Your task to perform on an android device: open app "Pinterest" (install if not already installed), go to login, and select forgot password Image 0: 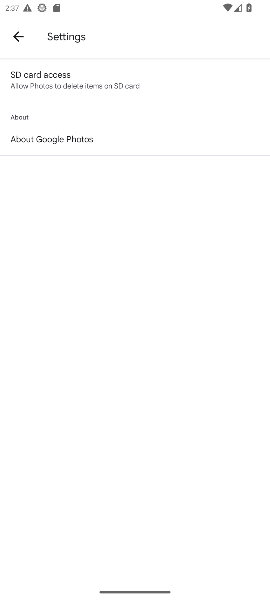
Step 0: press home button
Your task to perform on an android device: open app "Pinterest" (install if not already installed), go to login, and select forgot password Image 1: 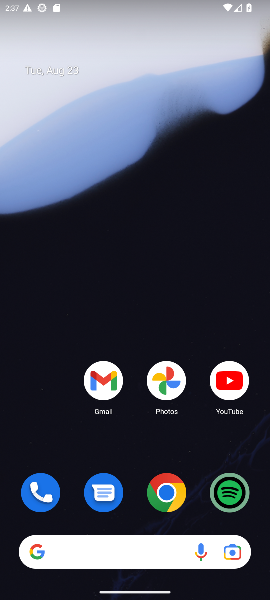
Step 1: drag from (131, 513) to (134, 181)
Your task to perform on an android device: open app "Pinterest" (install if not already installed), go to login, and select forgot password Image 2: 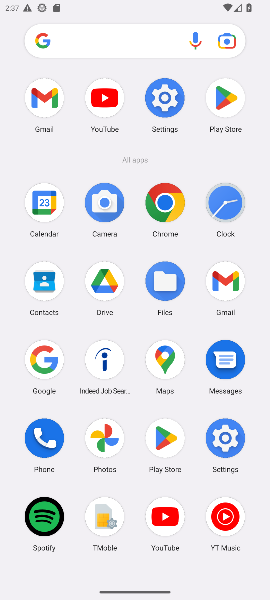
Step 2: click (218, 104)
Your task to perform on an android device: open app "Pinterest" (install if not already installed), go to login, and select forgot password Image 3: 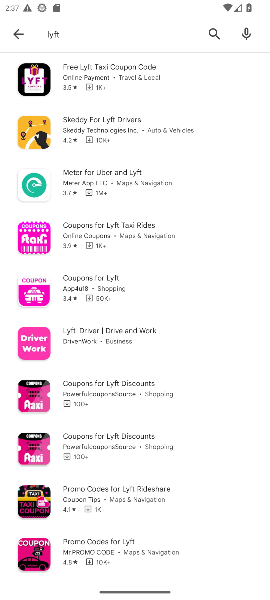
Step 3: click (222, 35)
Your task to perform on an android device: open app "Pinterest" (install if not already installed), go to login, and select forgot password Image 4: 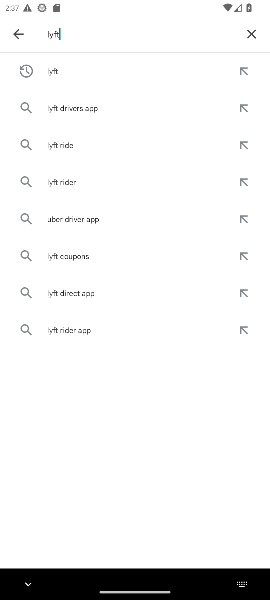
Step 4: click (249, 33)
Your task to perform on an android device: open app "Pinterest" (install if not already installed), go to login, and select forgot password Image 5: 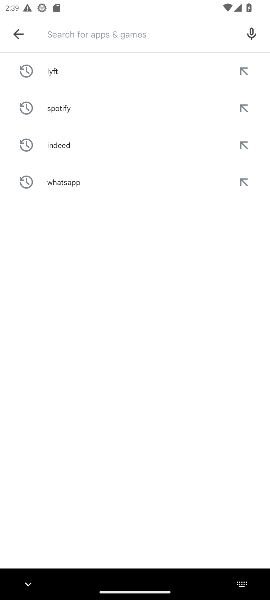
Step 5: type "pintreste"
Your task to perform on an android device: open app "Pinterest" (install if not already installed), go to login, and select forgot password Image 6: 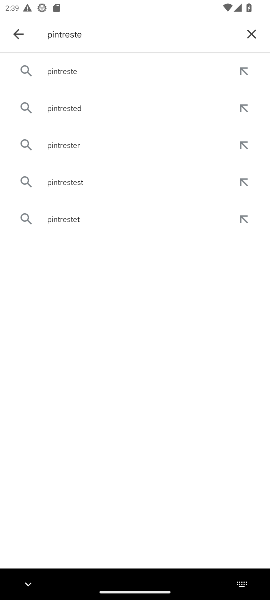
Step 6: click (92, 75)
Your task to perform on an android device: open app "Pinterest" (install if not already installed), go to login, and select forgot password Image 7: 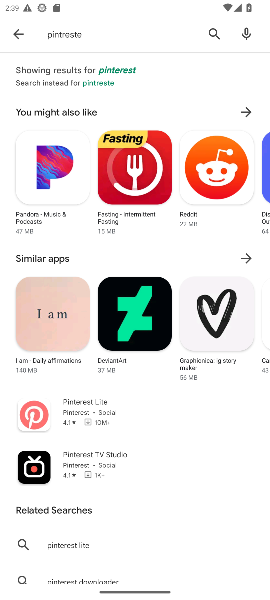
Step 7: click (131, 73)
Your task to perform on an android device: open app "Pinterest" (install if not already installed), go to login, and select forgot password Image 8: 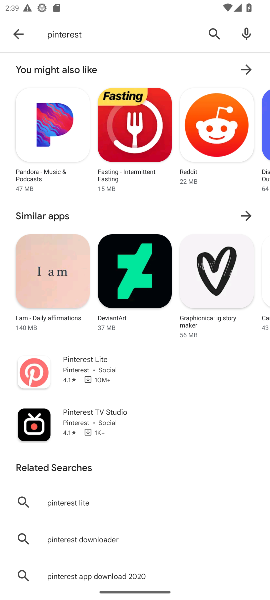
Step 8: task complete